Your task to perform on an android device: read, delete, or share a saved page in the chrome app Image 0: 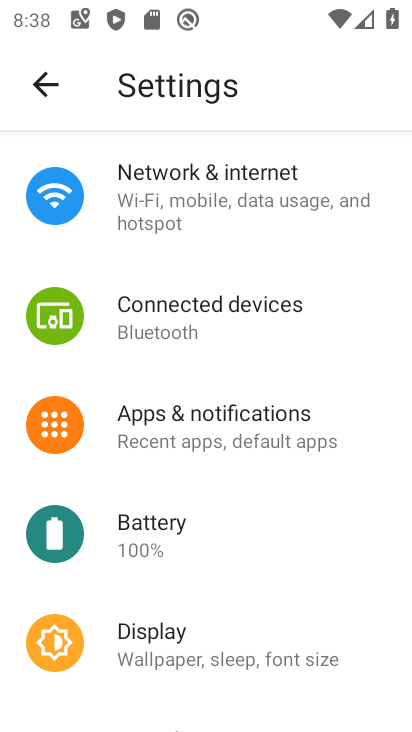
Step 0: press home button
Your task to perform on an android device: read, delete, or share a saved page in the chrome app Image 1: 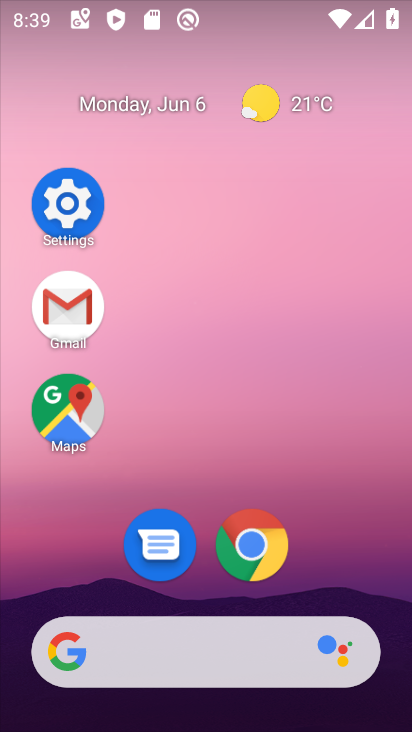
Step 1: click (243, 593)
Your task to perform on an android device: read, delete, or share a saved page in the chrome app Image 2: 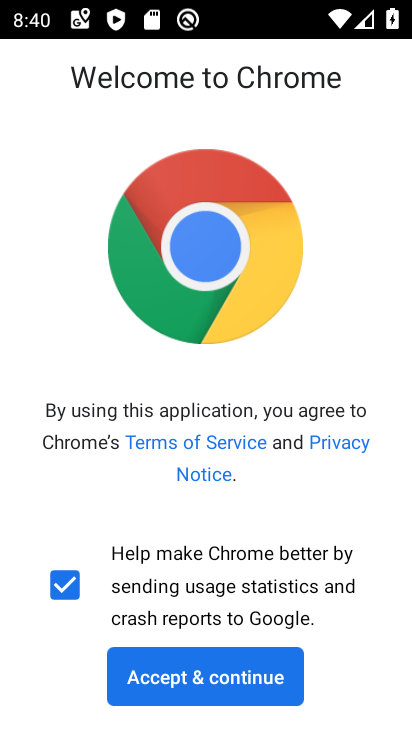
Step 2: click (252, 673)
Your task to perform on an android device: read, delete, or share a saved page in the chrome app Image 3: 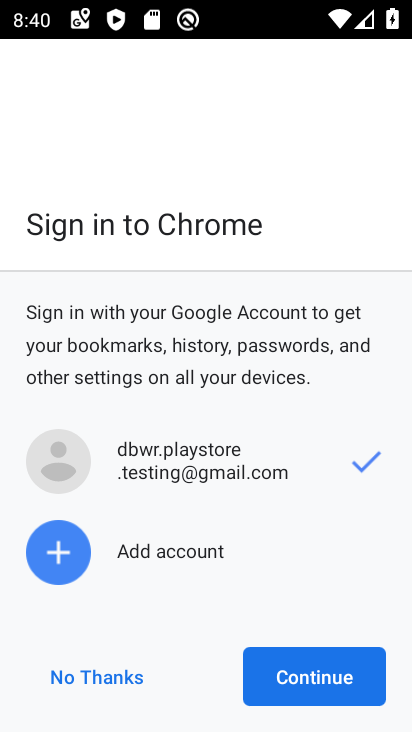
Step 3: click (353, 686)
Your task to perform on an android device: read, delete, or share a saved page in the chrome app Image 4: 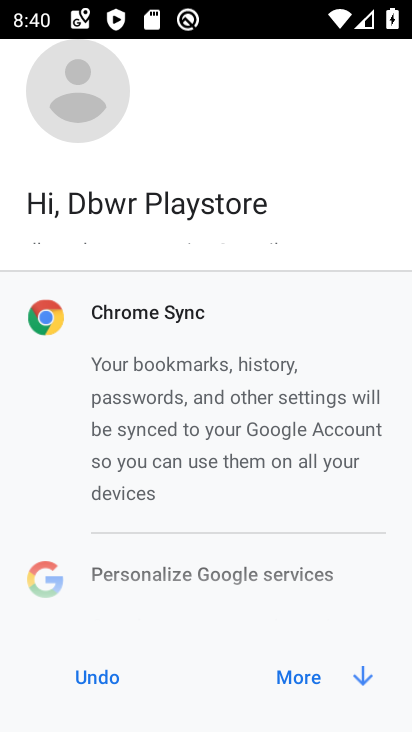
Step 4: click (298, 674)
Your task to perform on an android device: read, delete, or share a saved page in the chrome app Image 5: 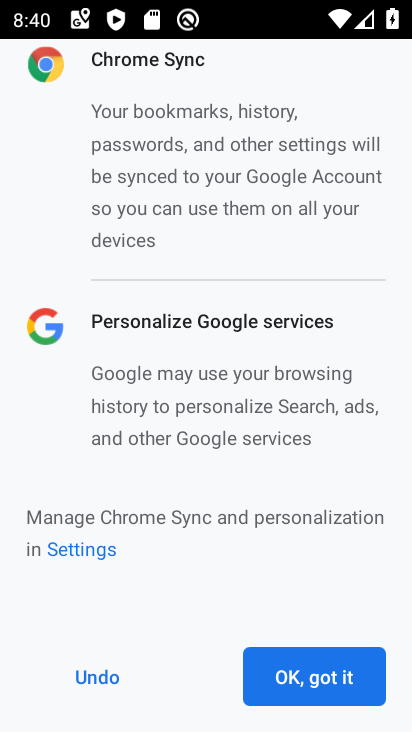
Step 5: click (316, 671)
Your task to perform on an android device: read, delete, or share a saved page in the chrome app Image 6: 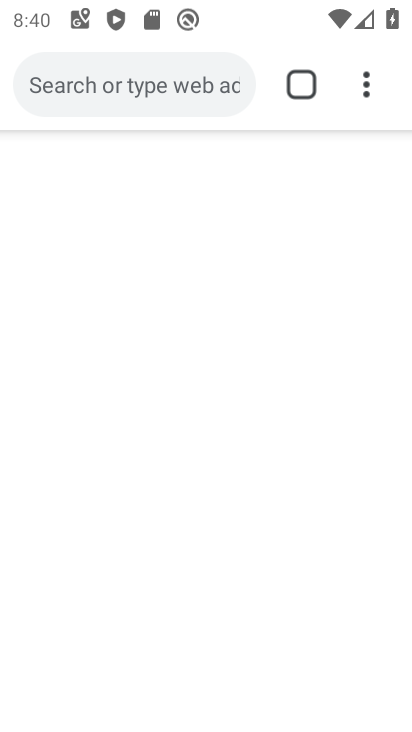
Step 6: click (363, 93)
Your task to perform on an android device: read, delete, or share a saved page in the chrome app Image 7: 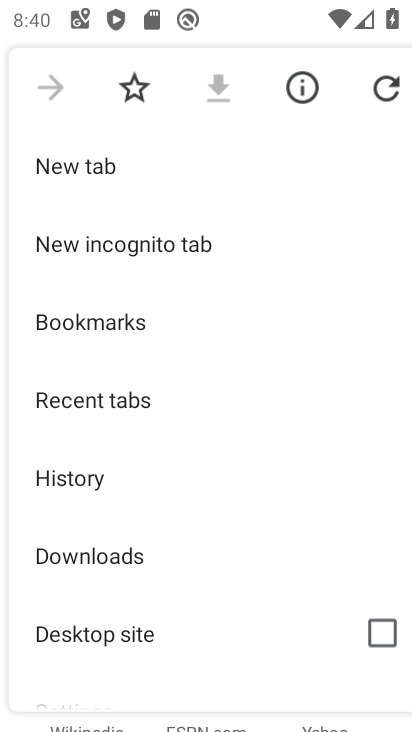
Step 7: click (142, 544)
Your task to perform on an android device: read, delete, or share a saved page in the chrome app Image 8: 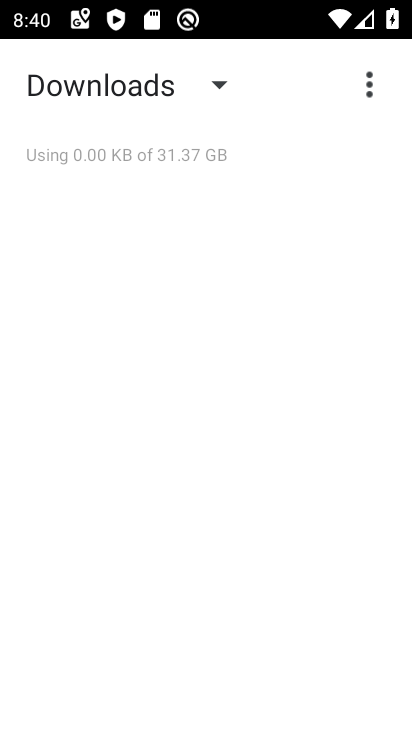
Step 8: task complete